Your task to perform on an android device: toggle translation in the chrome app Image 0: 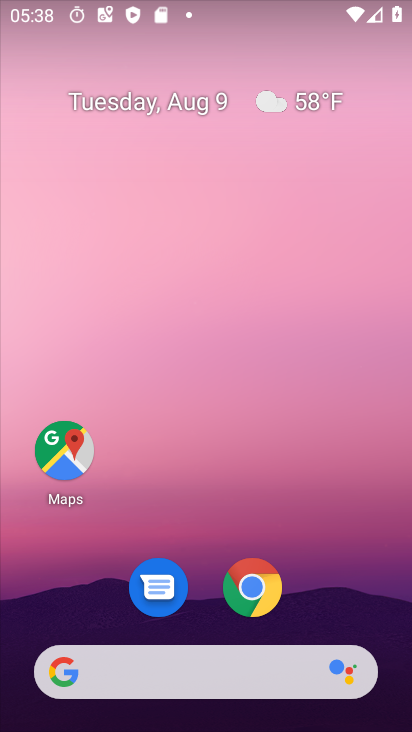
Step 0: drag from (195, 669) to (271, 119)
Your task to perform on an android device: toggle translation in the chrome app Image 1: 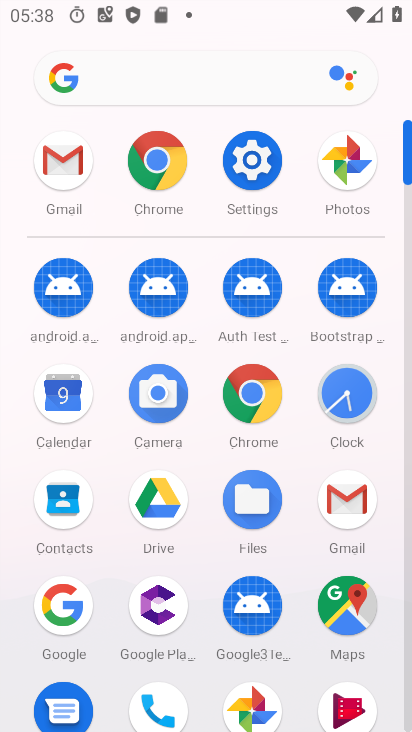
Step 1: click (163, 156)
Your task to perform on an android device: toggle translation in the chrome app Image 2: 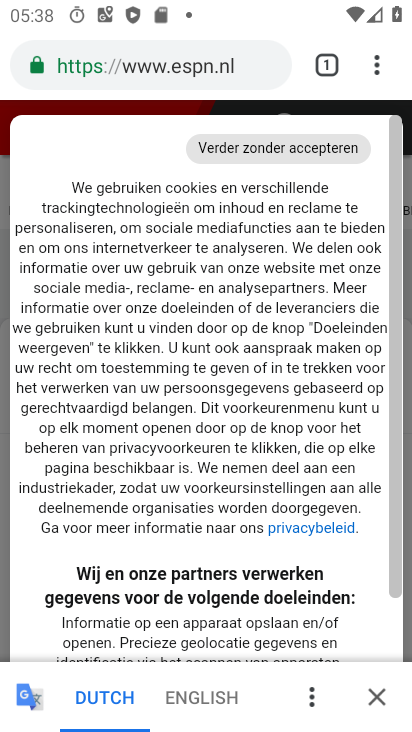
Step 2: drag from (377, 63) to (155, 635)
Your task to perform on an android device: toggle translation in the chrome app Image 3: 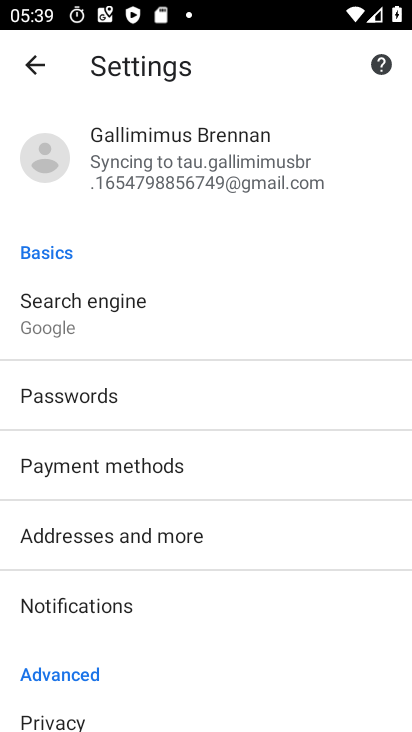
Step 3: drag from (169, 661) to (169, 122)
Your task to perform on an android device: toggle translation in the chrome app Image 4: 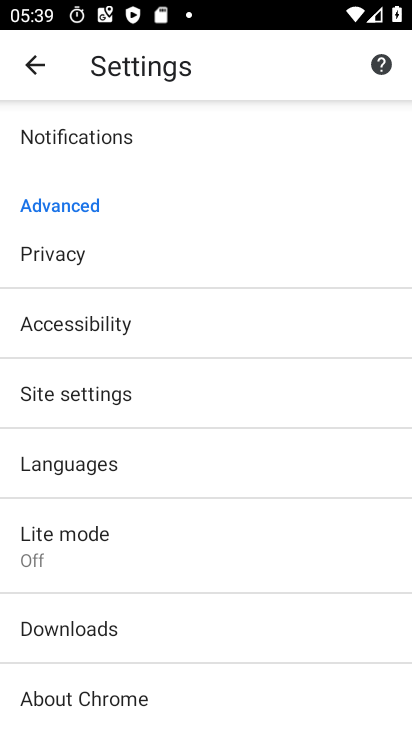
Step 4: drag from (159, 662) to (176, 270)
Your task to perform on an android device: toggle translation in the chrome app Image 5: 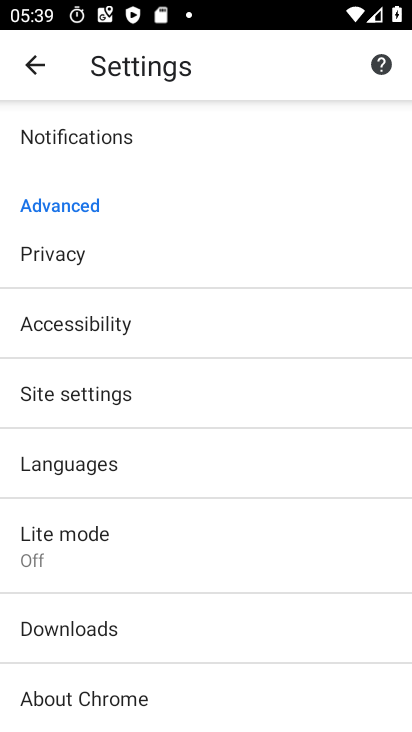
Step 5: click (118, 468)
Your task to perform on an android device: toggle translation in the chrome app Image 6: 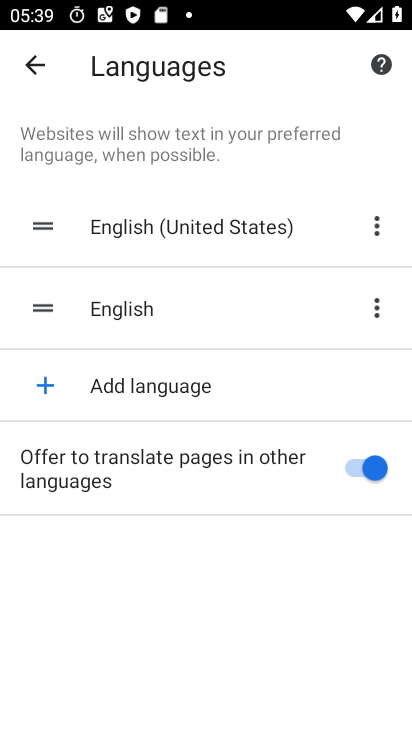
Step 6: click (377, 482)
Your task to perform on an android device: toggle translation in the chrome app Image 7: 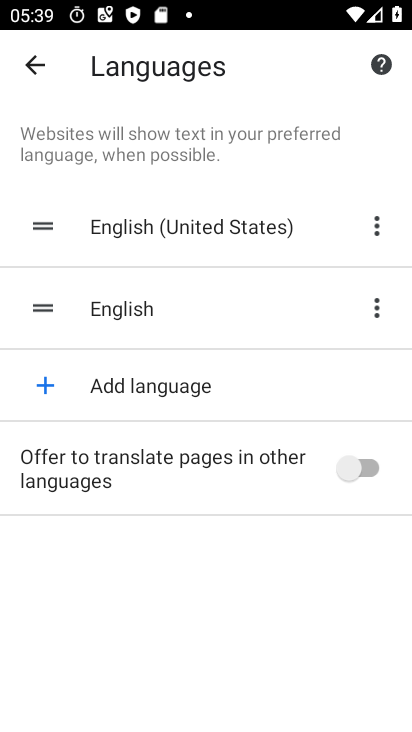
Step 7: task complete